Your task to perform on an android device: What's the weather going to be this weekend? Image 0: 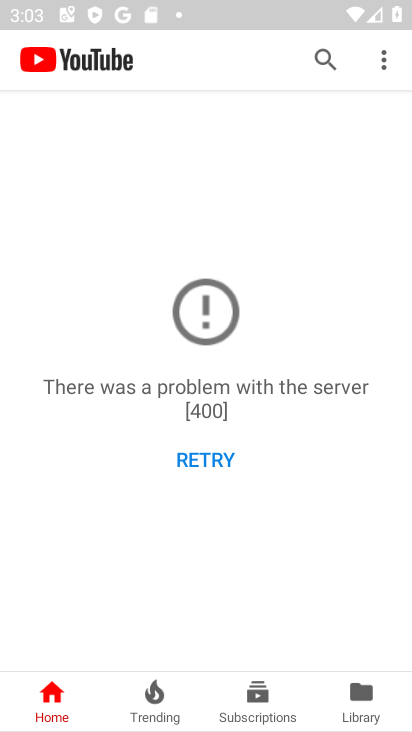
Step 0: press back button
Your task to perform on an android device: What's the weather going to be this weekend? Image 1: 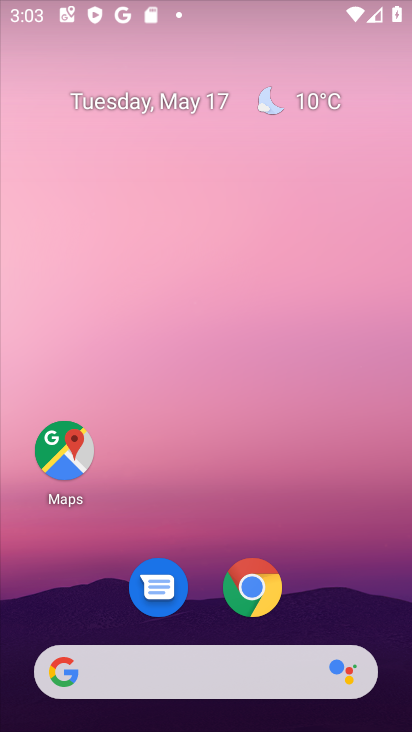
Step 1: drag from (320, 559) to (238, 5)
Your task to perform on an android device: What's the weather going to be this weekend? Image 2: 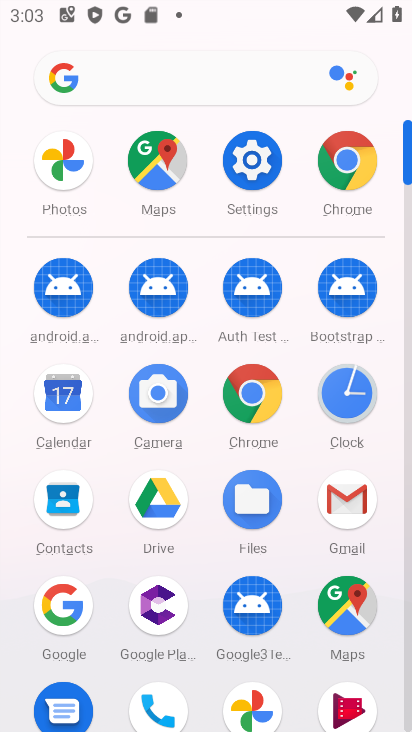
Step 2: drag from (7, 633) to (19, 345)
Your task to perform on an android device: What's the weather going to be this weekend? Image 3: 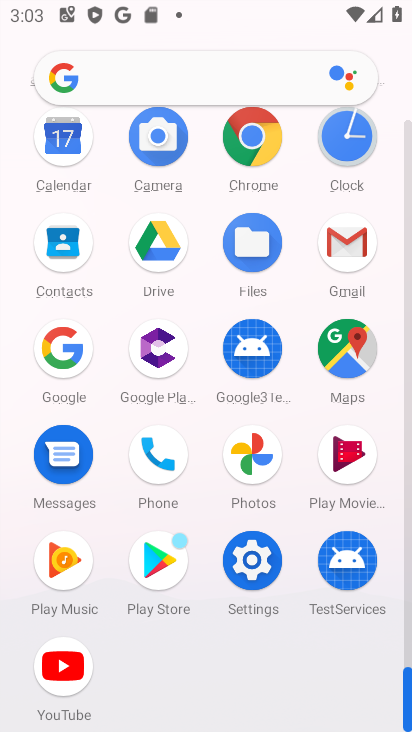
Step 3: click (253, 141)
Your task to perform on an android device: What's the weather going to be this weekend? Image 4: 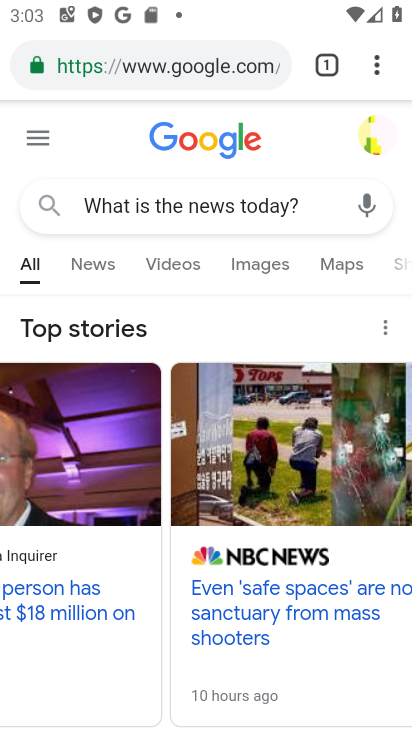
Step 4: click (159, 63)
Your task to perform on an android device: What's the weather going to be this weekend? Image 5: 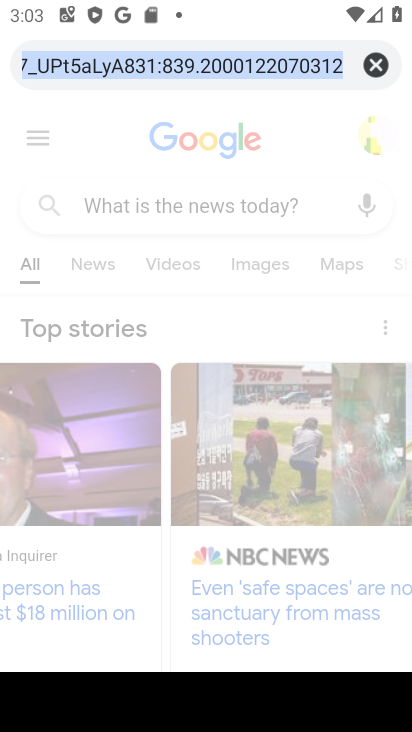
Step 5: click (375, 62)
Your task to perform on an android device: What's the weather going to be this weekend? Image 6: 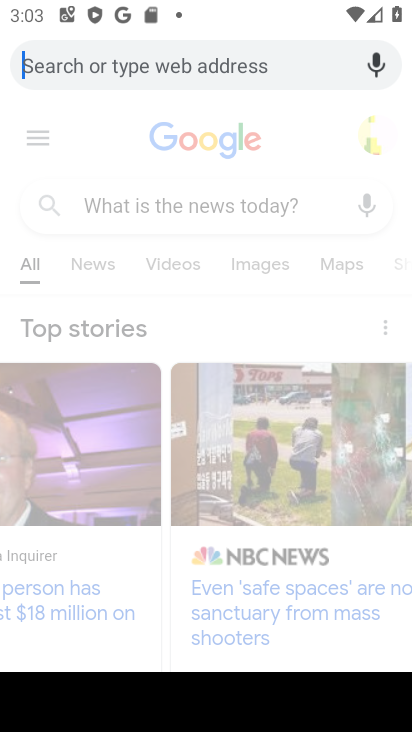
Step 6: type "What's the weather going to be this weekend"
Your task to perform on an android device: What's the weather going to be this weekend? Image 7: 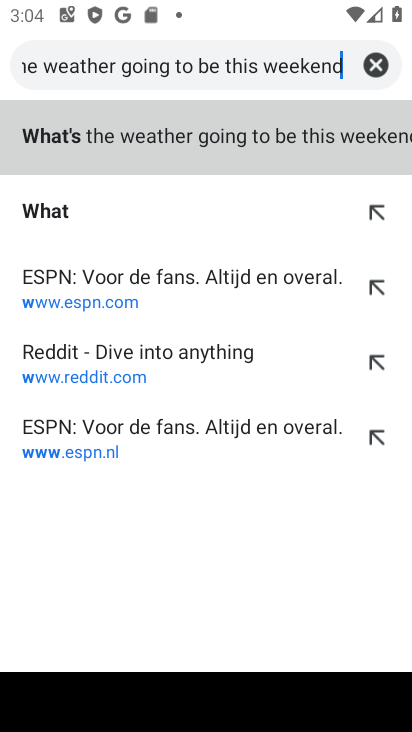
Step 7: type ""
Your task to perform on an android device: What's the weather going to be this weekend? Image 8: 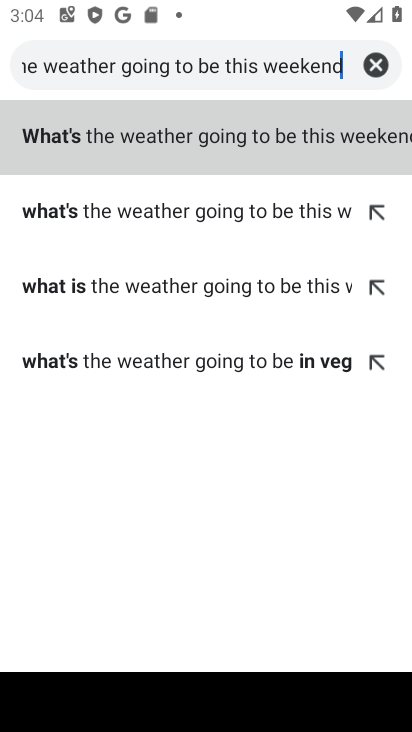
Step 8: click (118, 108)
Your task to perform on an android device: What's the weather going to be this weekend? Image 9: 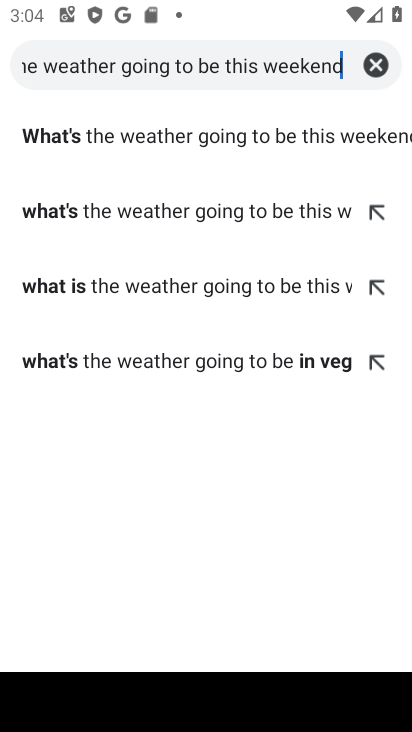
Step 9: click (134, 131)
Your task to perform on an android device: What's the weather going to be this weekend? Image 10: 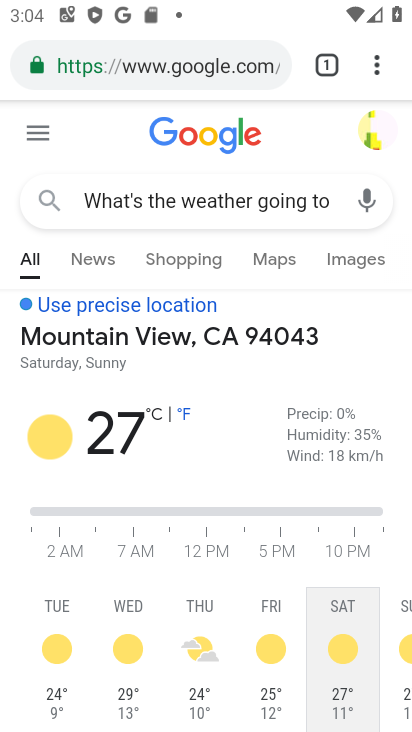
Step 10: task complete